Your task to perform on an android device: open app "ColorNote Notepad Notes" Image 0: 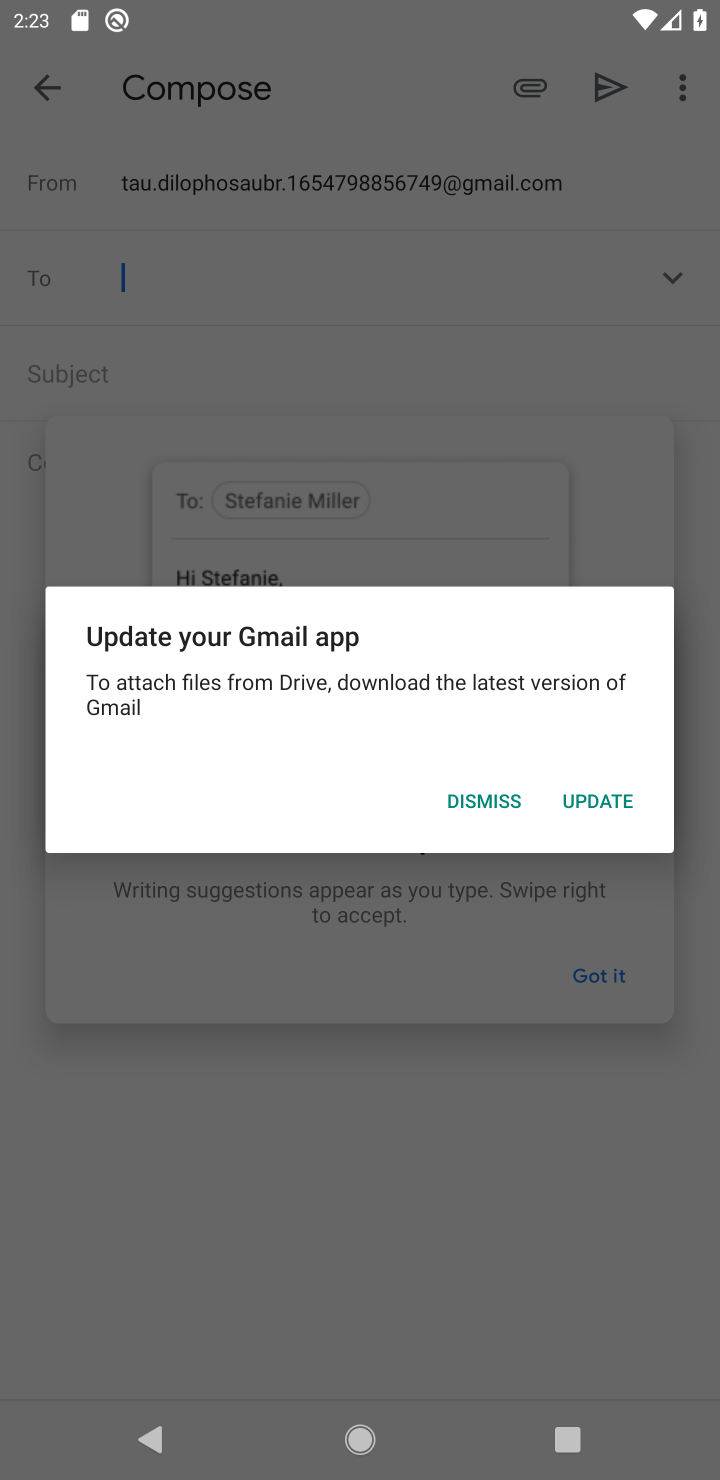
Step 0: press home button
Your task to perform on an android device: open app "ColorNote Notepad Notes" Image 1: 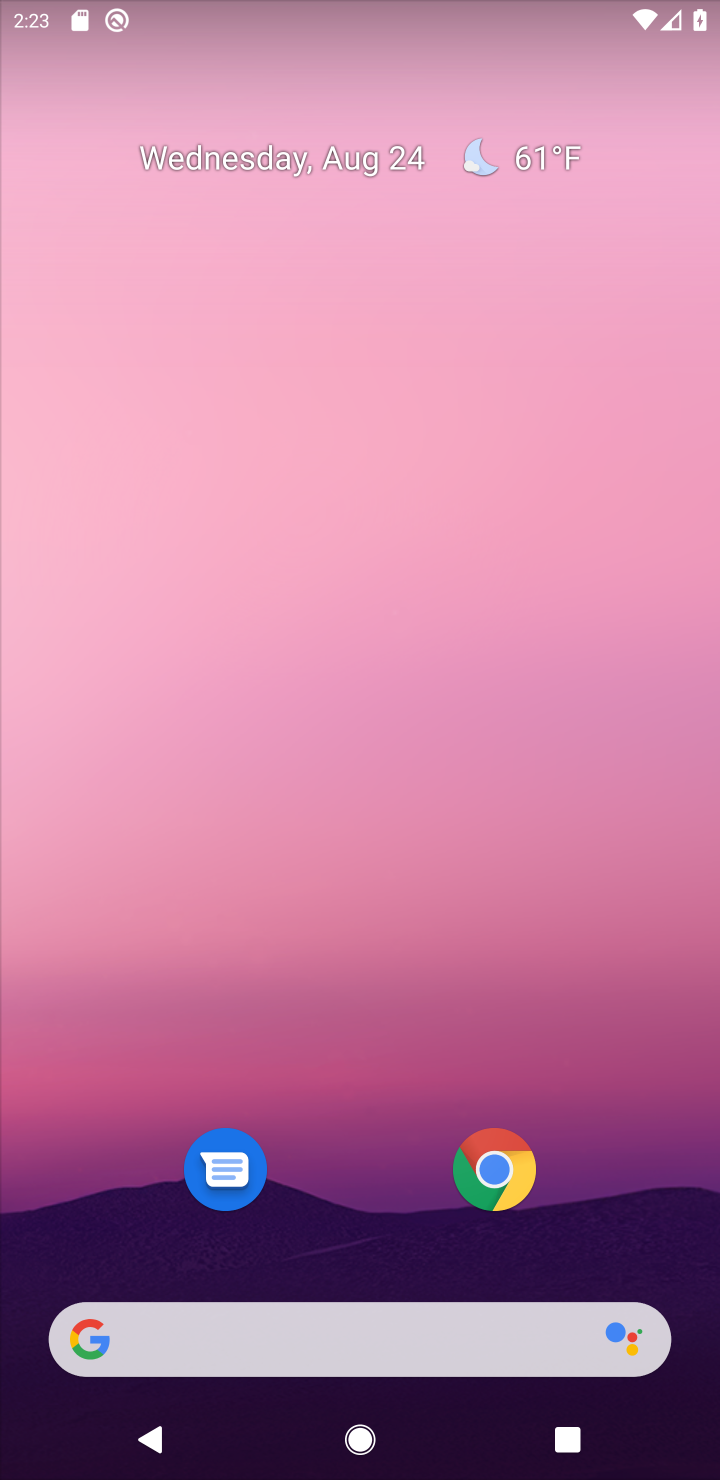
Step 1: drag from (339, 1231) to (481, 48)
Your task to perform on an android device: open app "ColorNote Notepad Notes" Image 2: 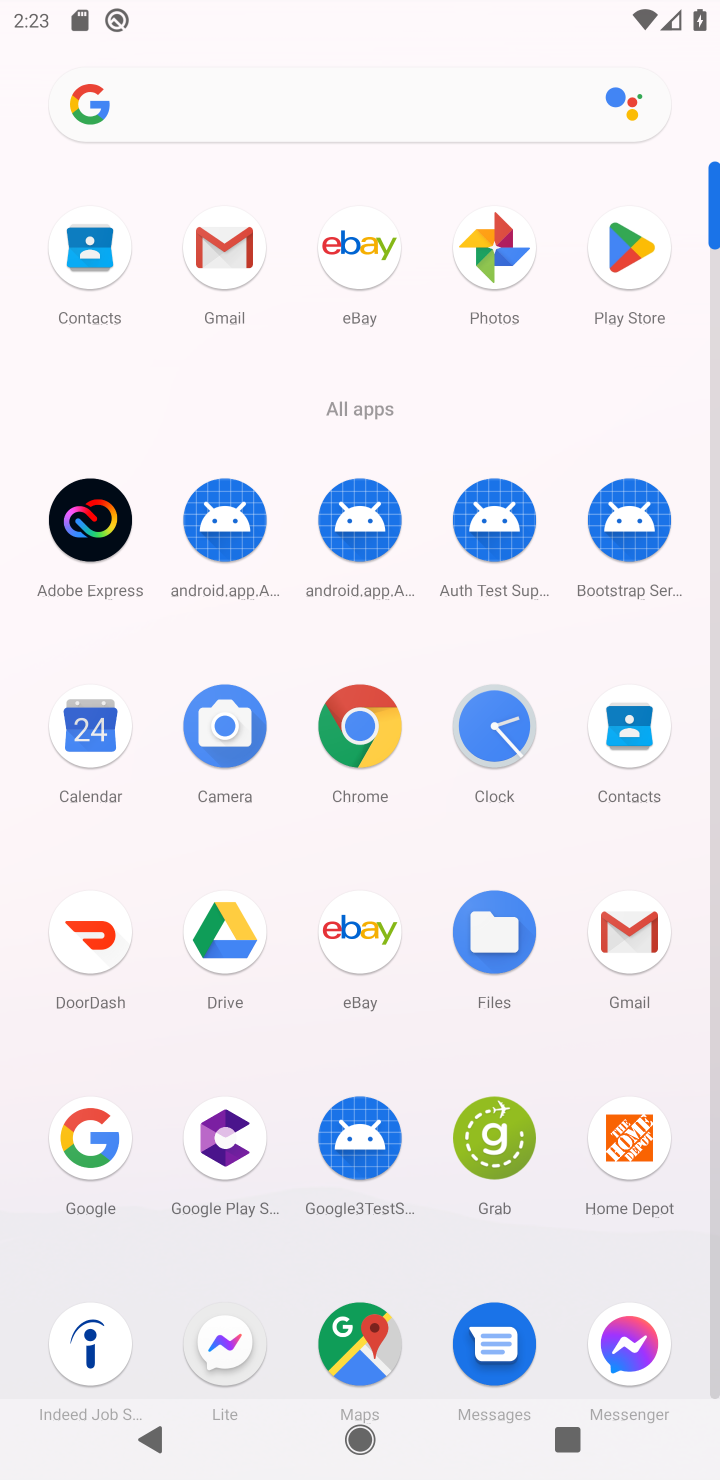
Step 2: click (613, 249)
Your task to perform on an android device: open app "ColorNote Notepad Notes" Image 3: 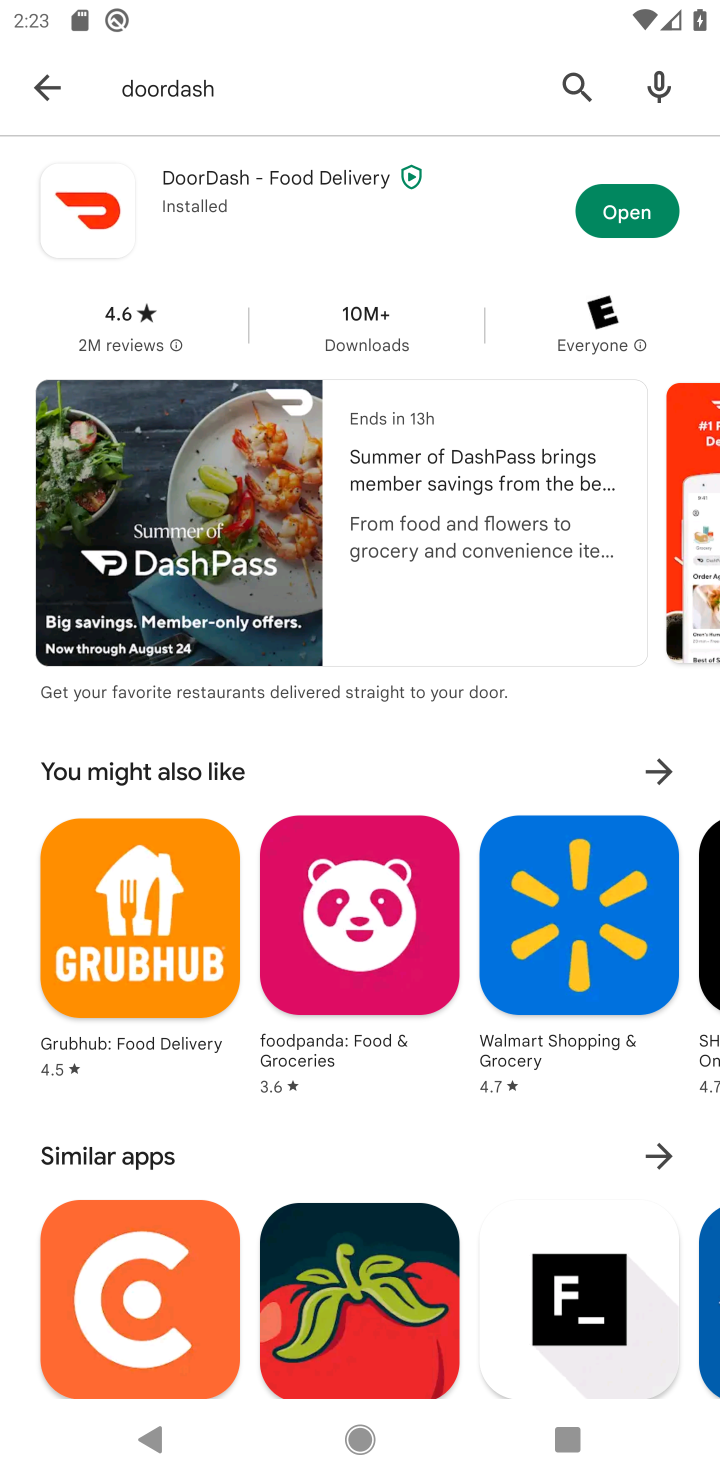
Step 3: click (32, 76)
Your task to perform on an android device: open app "ColorNote Notepad Notes" Image 4: 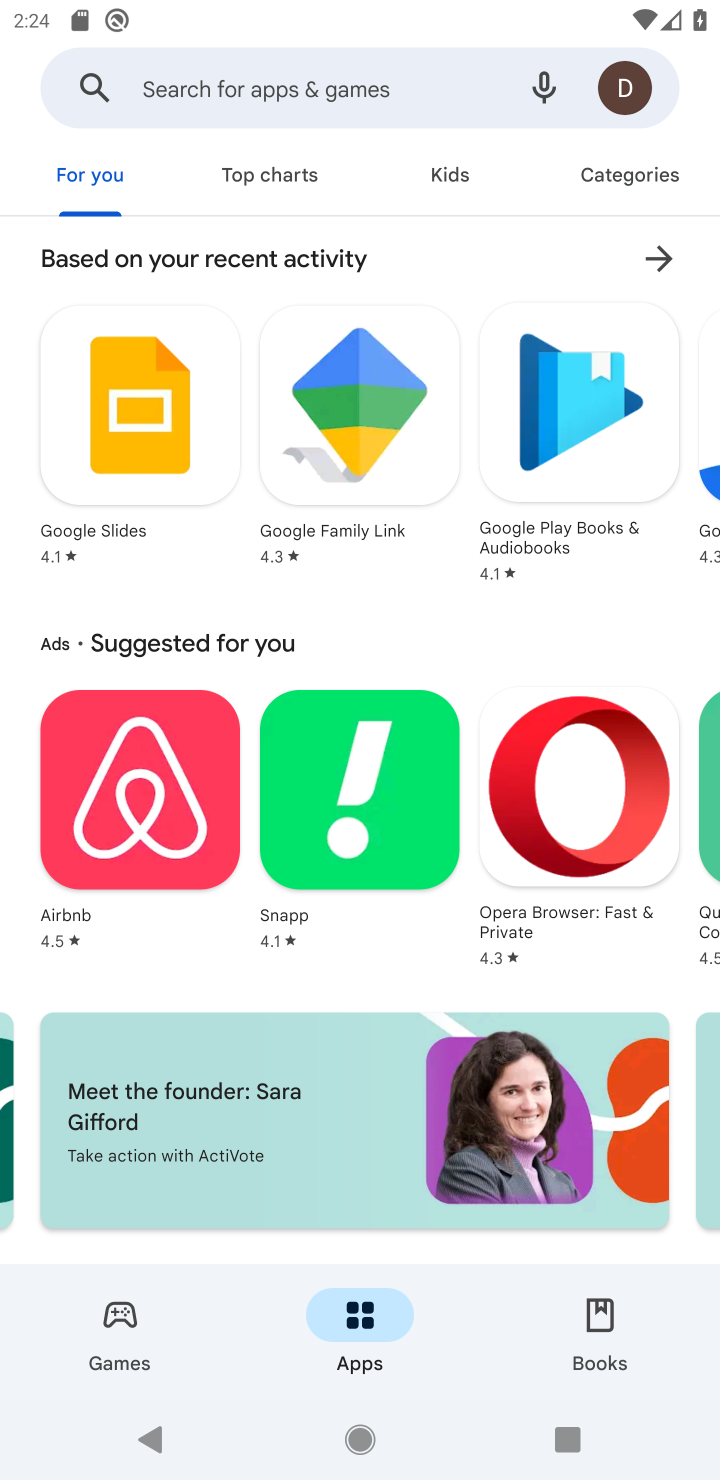
Step 4: click (214, 89)
Your task to perform on an android device: open app "ColorNote Notepad Notes" Image 5: 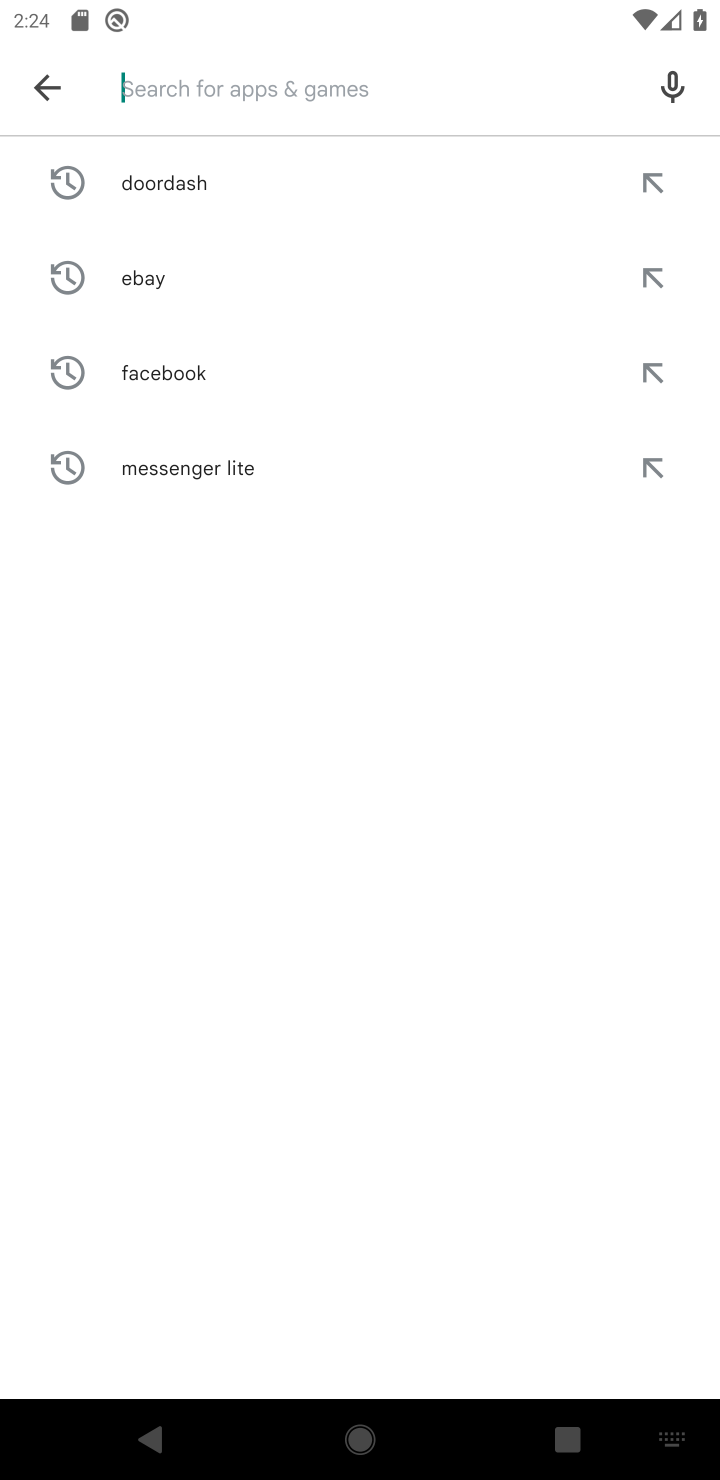
Step 5: type "ColorNote Notepad Notes"
Your task to perform on an android device: open app "ColorNote Notepad Notes" Image 6: 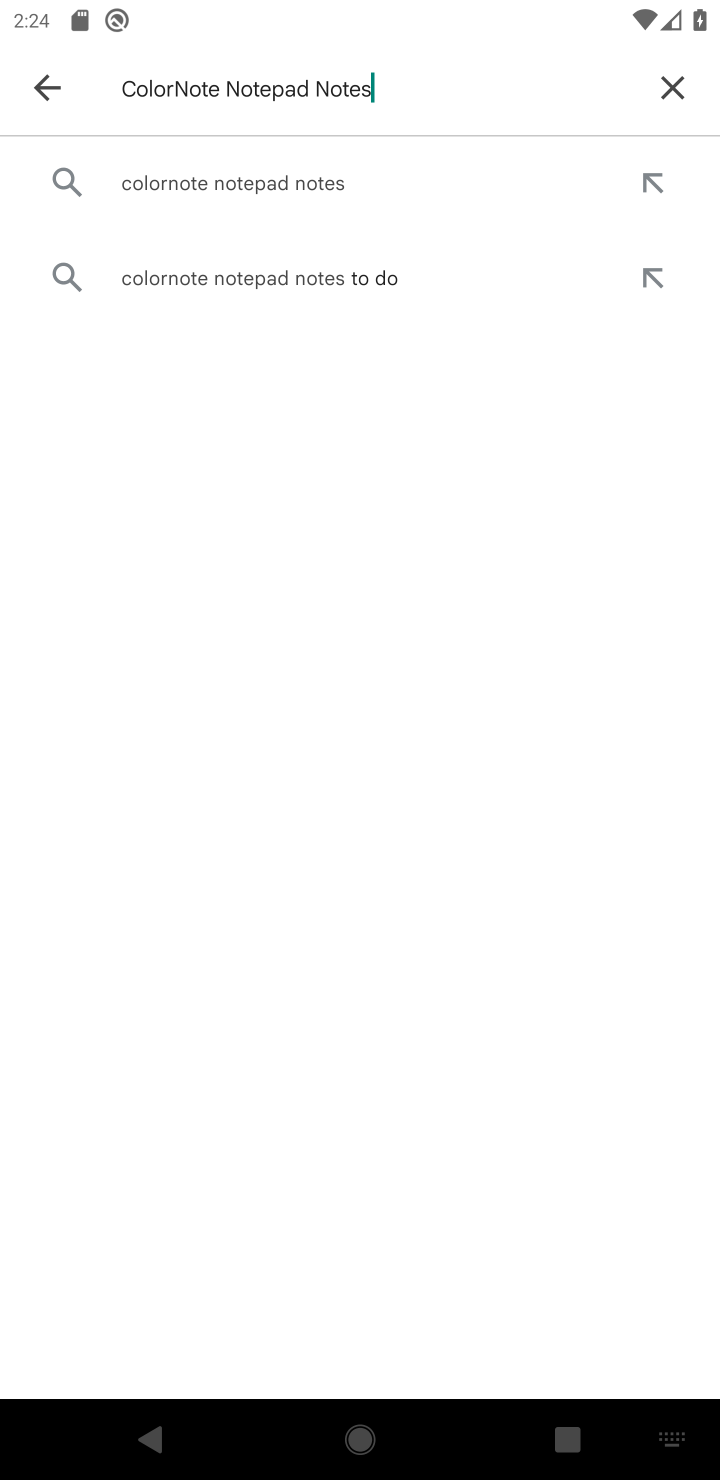
Step 6: click (175, 207)
Your task to perform on an android device: open app "ColorNote Notepad Notes" Image 7: 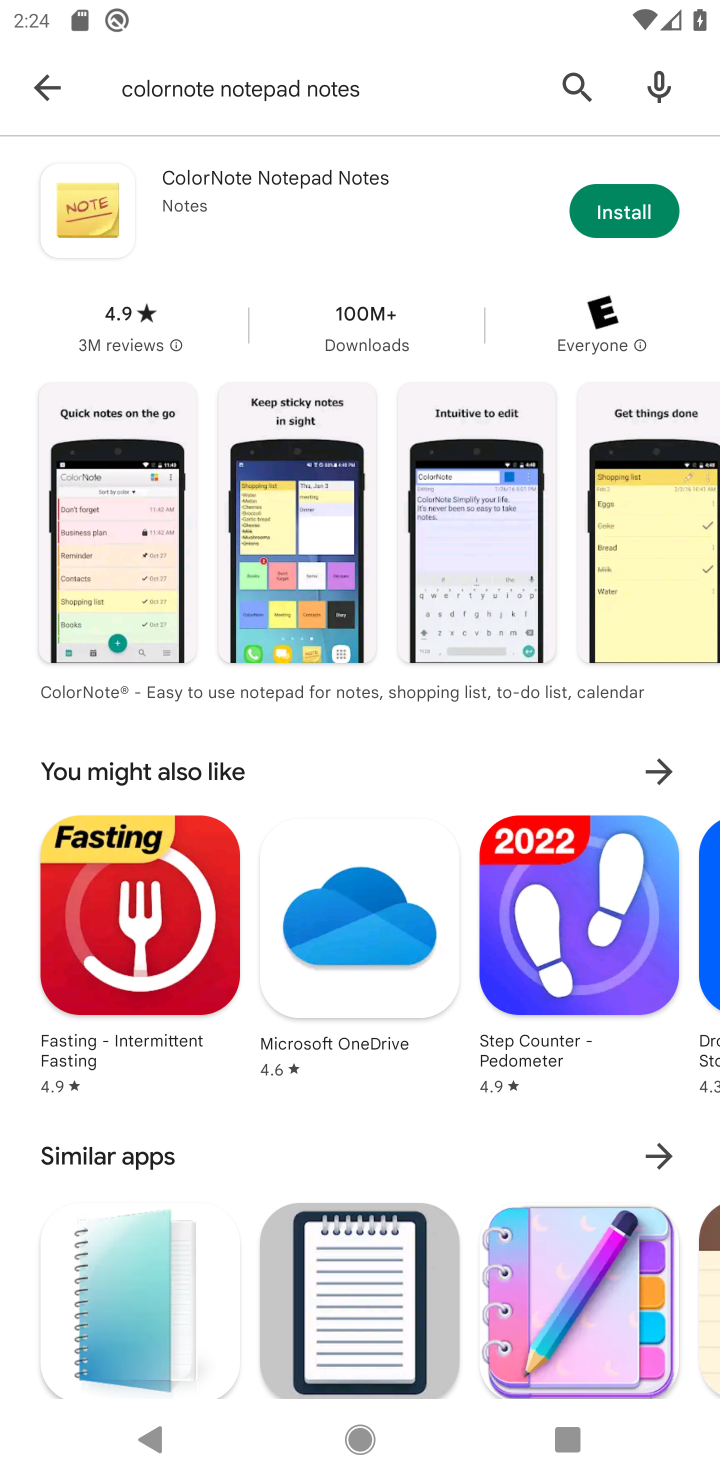
Step 7: task complete